Your task to perform on an android device: Open Android settings Image 0: 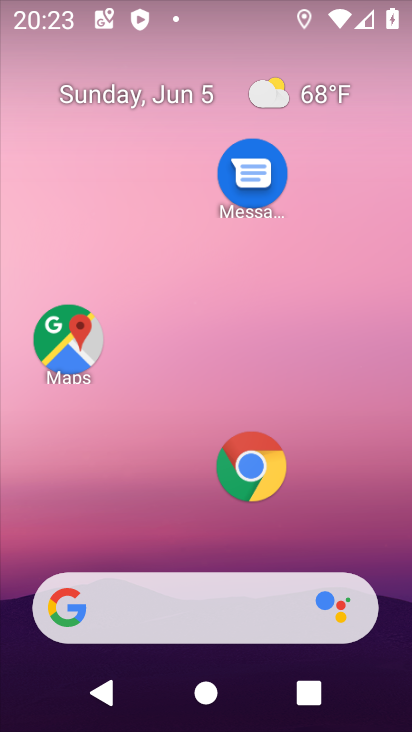
Step 0: drag from (210, 521) to (249, 136)
Your task to perform on an android device: Open Android settings Image 1: 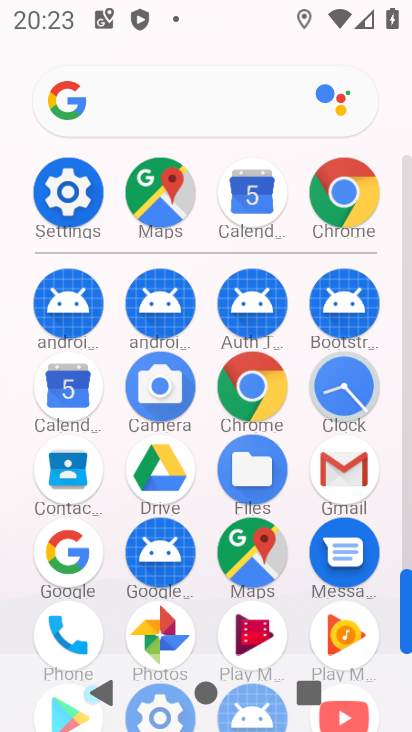
Step 1: click (64, 183)
Your task to perform on an android device: Open Android settings Image 2: 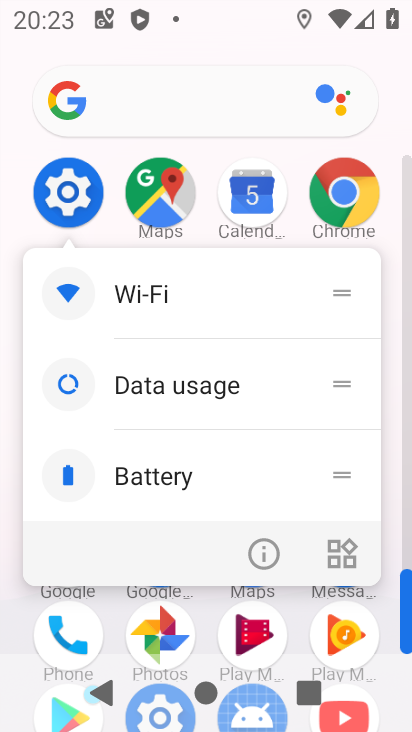
Step 2: click (259, 560)
Your task to perform on an android device: Open Android settings Image 3: 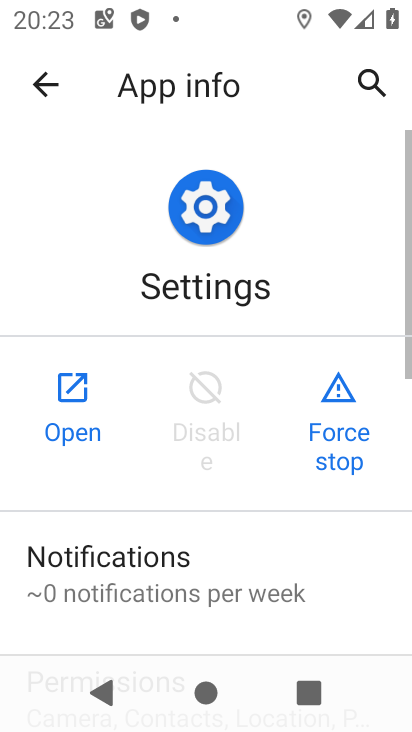
Step 3: click (79, 424)
Your task to perform on an android device: Open Android settings Image 4: 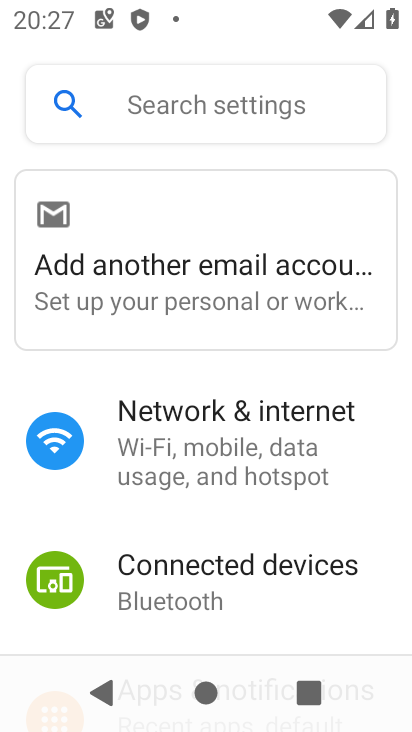
Step 4: drag from (211, 433) to (277, 61)
Your task to perform on an android device: Open Android settings Image 5: 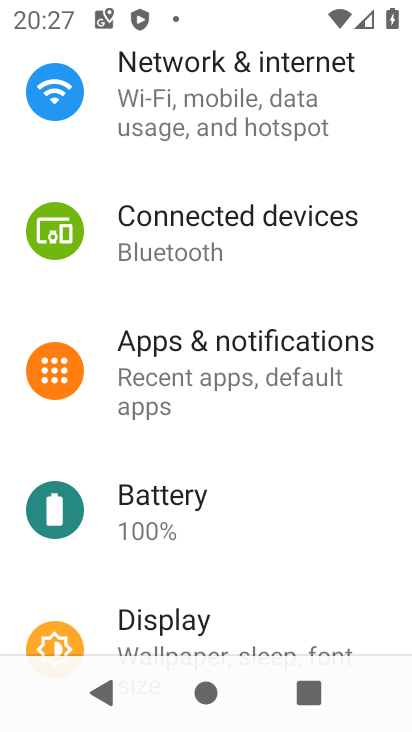
Step 5: drag from (259, 568) to (363, 555)
Your task to perform on an android device: Open Android settings Image 6: 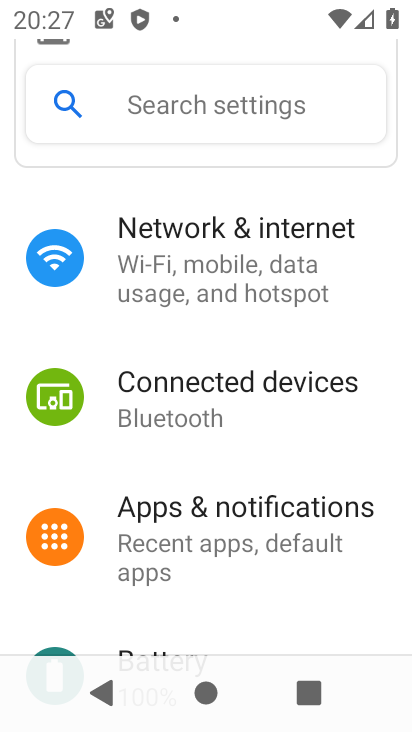
Step 6: drag from (96, 578) to (206, 27)
Your task to perform on an android device: Open Android settings Image 7: 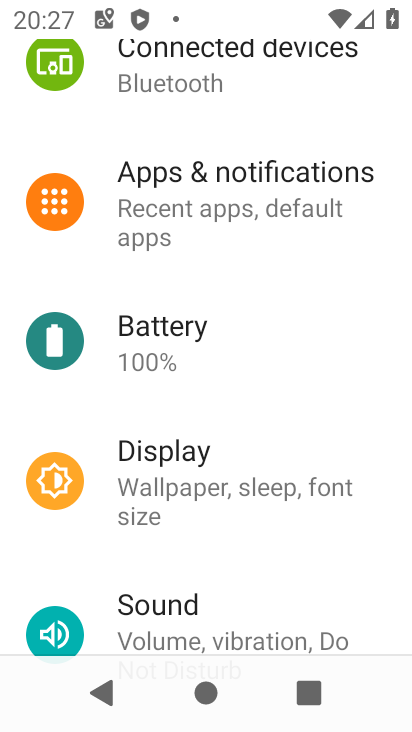
Step 7: drag from (240, 563) to (303, 74)
Your task to perform on an android device: Open Android settings Image 8: 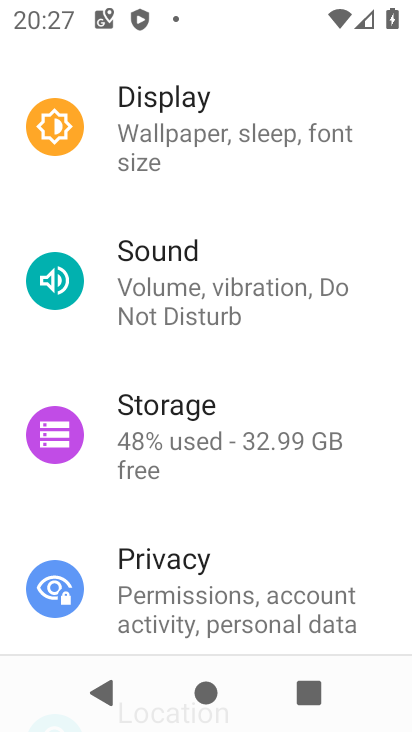
Step 8: drag from (232, 517) to (301, 101)
Your task to perform on an android device: Open Android settings Image 9: 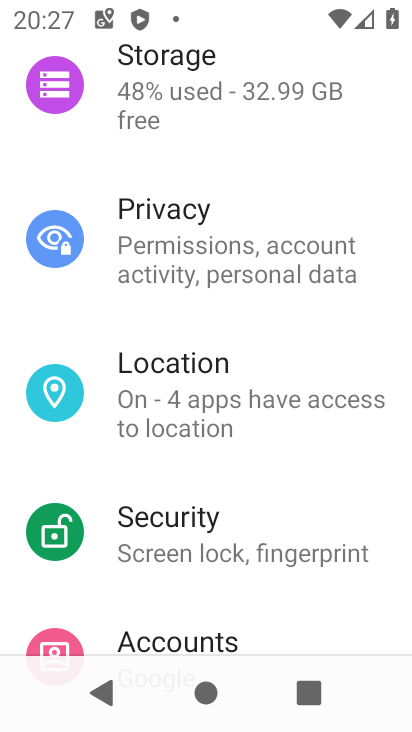
Step 9: drag from (232, 546) to (313, 4)
Your task to perform on an android device: Open Android settings Image 10: 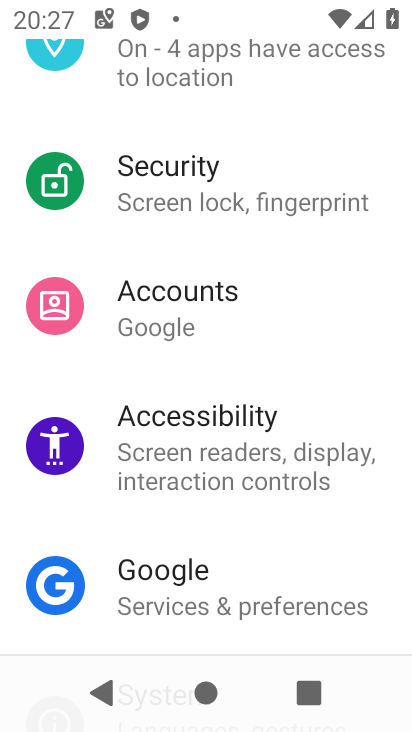
Step 10: drag from (196, 562) to (254, 36)
Your task to perform on an android device: Open Android settings Image 11: 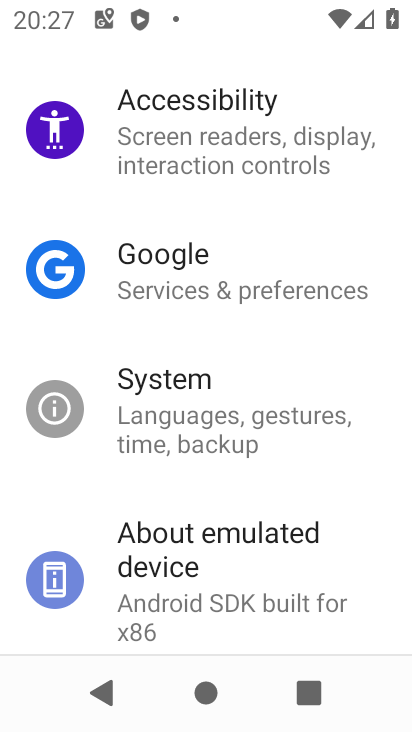
Step 11: click (140, 515)
Your task to perform on an android device: Open Android settings Image 12: 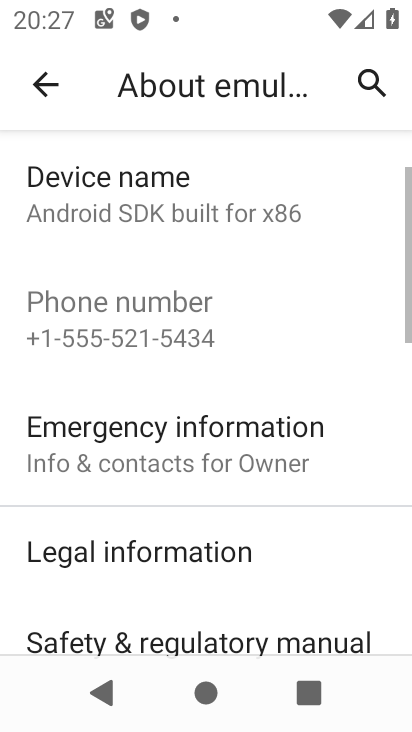
Step 12: drag from (209, 449) to (278, 116)
Your task to perform on an android device: Open Android settings Image 13: 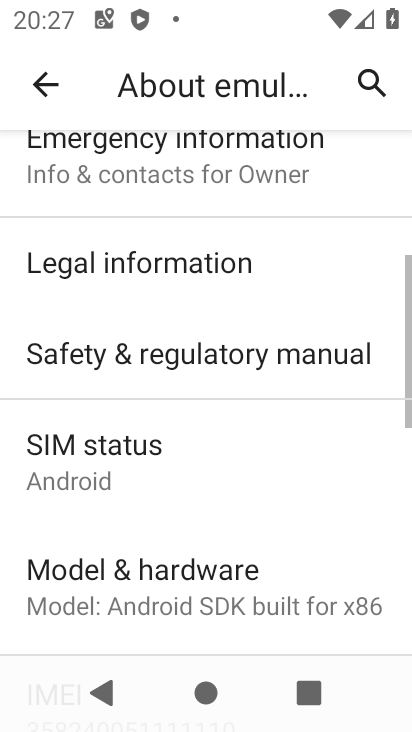
Step 13: drag from (187, 562) to (263, 133)
Your task to perform on an android device: Open Android settings Image 14: 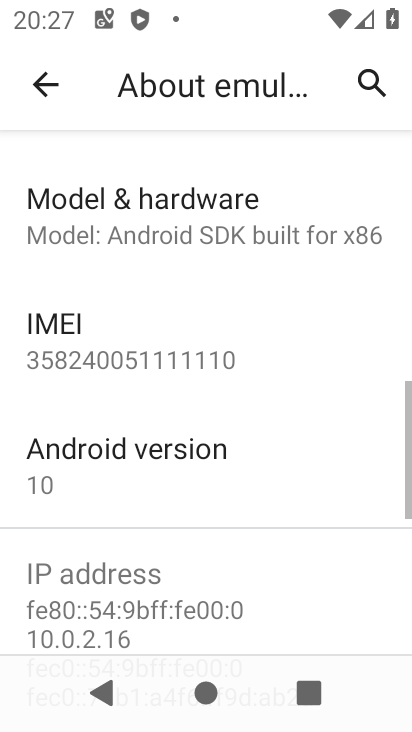
Step 14: click (122, 478)
Your task to perform on an android device: Open Android settings Image 15: 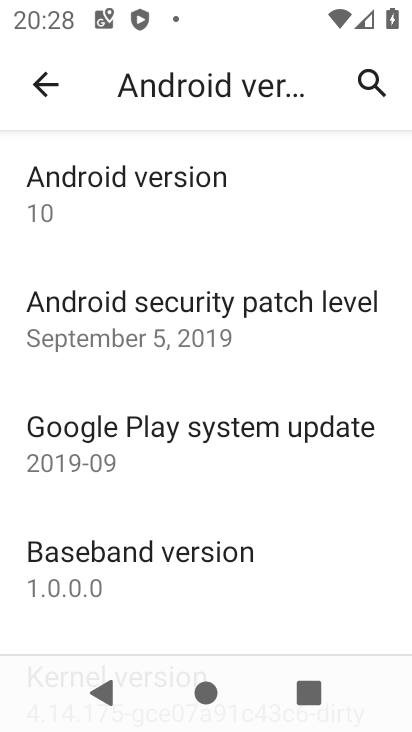
Step 15: click (92, 200)
Your task to perform on an android device: Open Android settings Image 16: 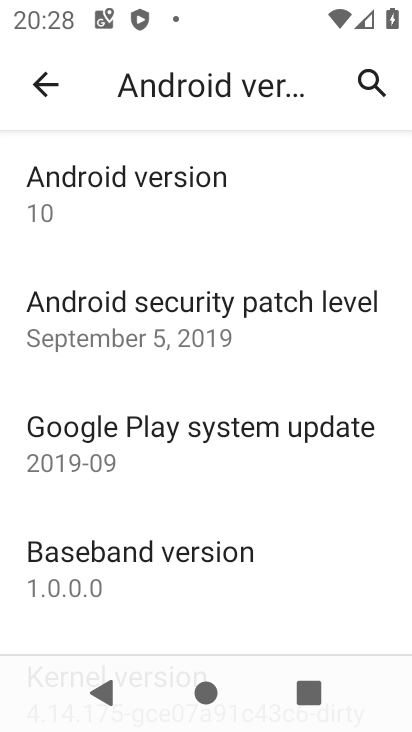
Step 16: task complete